Your task to perform on an android device: see sites visited before in the chrome app Image 0: 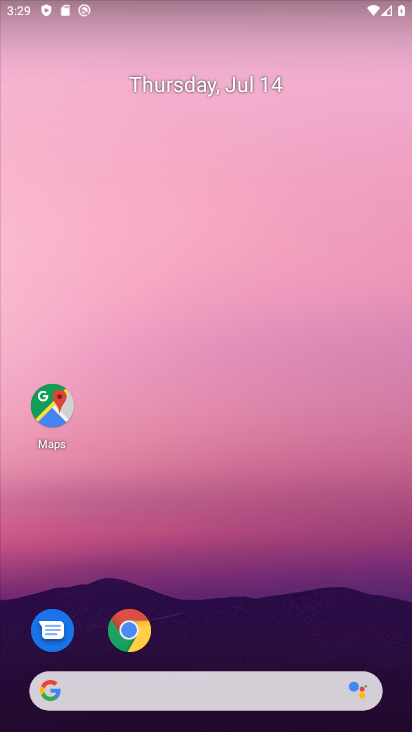
Step 0: click (130, 632)
Your task to perform on an android device: see sites visited before in the chrome app Image 1: 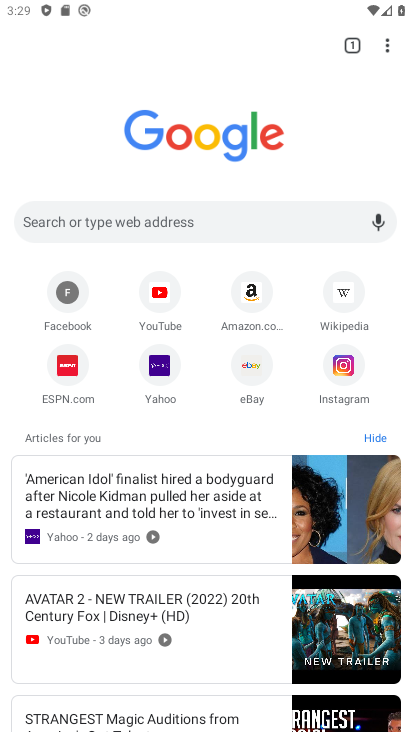
Step 1: click (389, 45)
Your task to perform on an android device: see sites visited before in the chrome app Image 2: 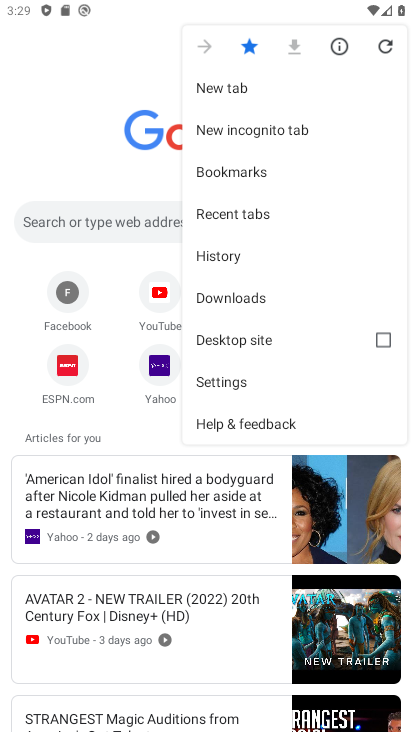
Step 2: click (228, 212)
Your task to perform on an android device: see sites visited before in the chrome app Image 3: 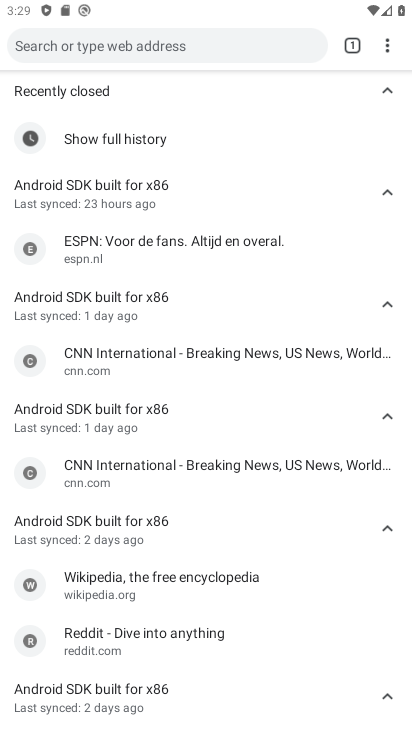
Step 3: task complete